Your task to perform on an android device: remove spam from my inbox in the gmail app Image 0: 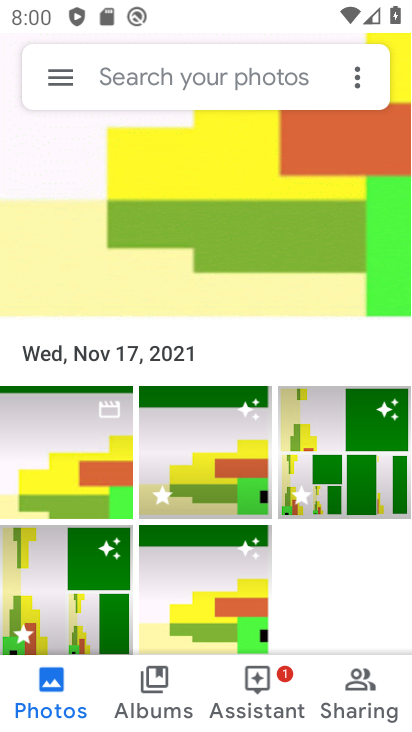
Step 0: press home button
Your task to perform on an android device: remove spam from my inbox in the gmail app Image 1: 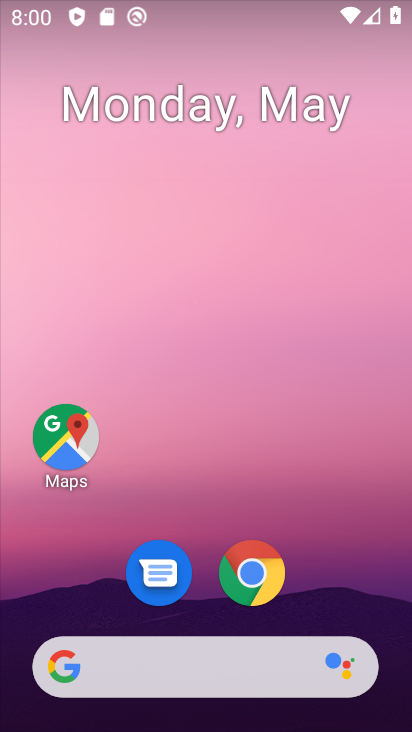
Step 1: drag from (107, 606) to (205, 59)
Your task to perform on an android device: remove spam from my inbox in the gmail app Image 2: 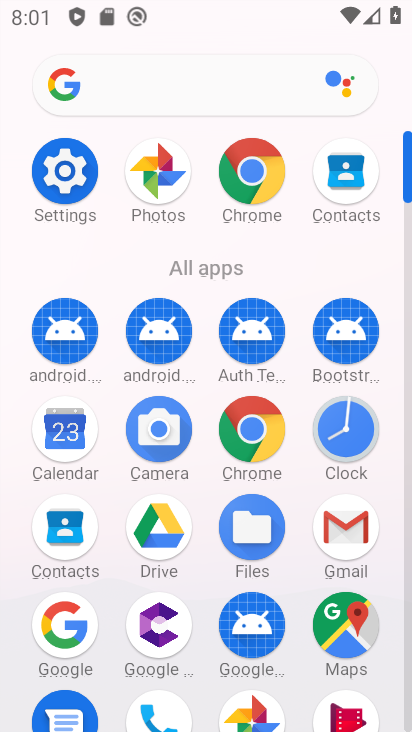
Step 2: click (321, 529)
Your task to perform on an android device: remove spam from my inbox in the gmail app Image 3: 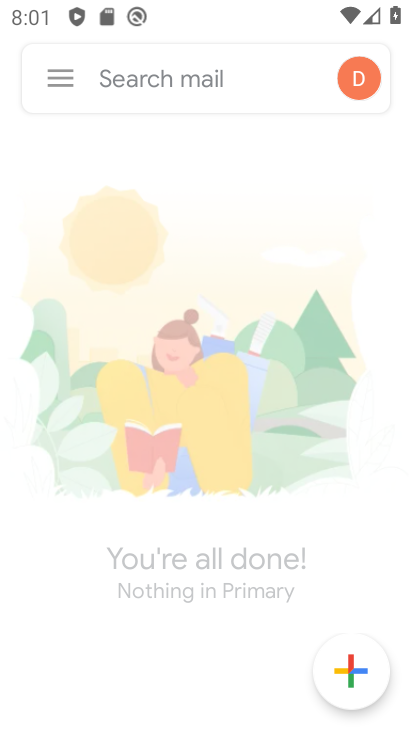
Step 3: click (66, 63)
Your task to perform on an android device: remove spam from my inbox in the gmail app Image 4: 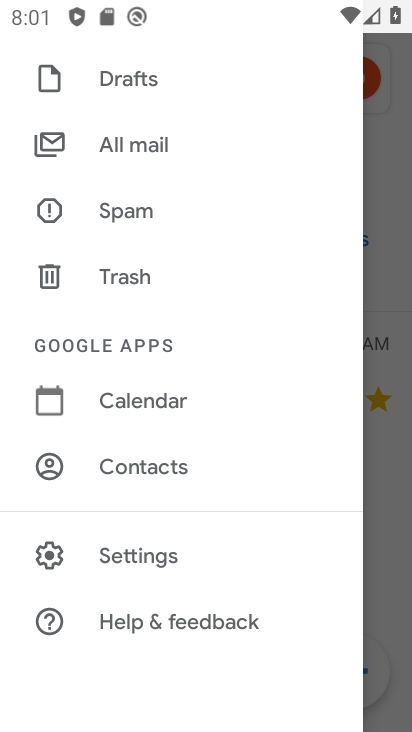
Step 4: click (173, 219)
Your task to perform on an android device: remove spam from my inbox in the gmail app Image 5: 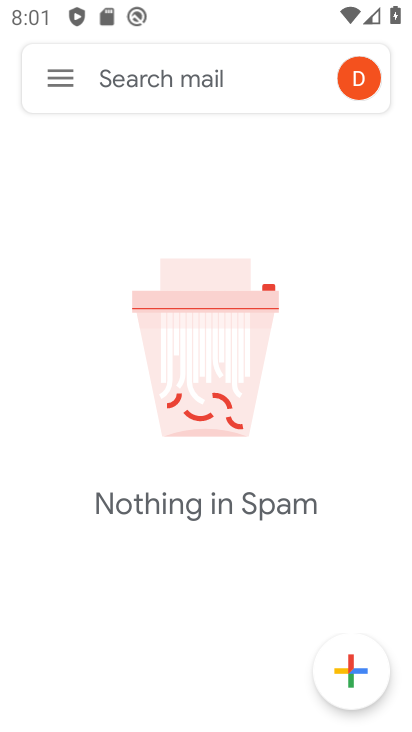
Step 5: task complete